Your task to perform on an android device: Open the calendar app, open the side menu, and click the "Day" option Image 0: 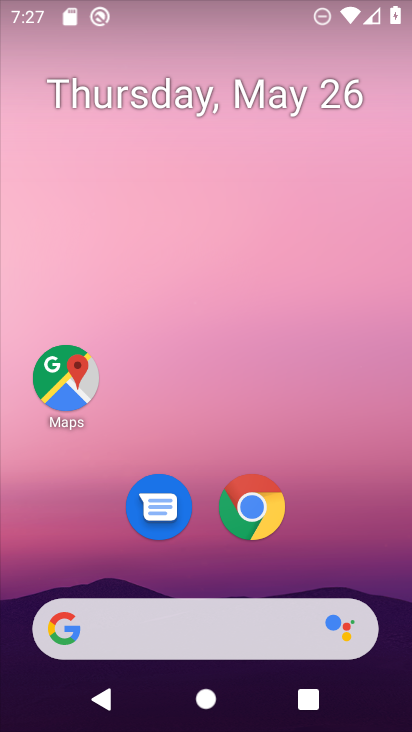
Step 0: drag from (190, 568) to (251, 171)
Your task to perform on an android device: Open the calendar app, open the side menu, and click the "Day" option Image 1: 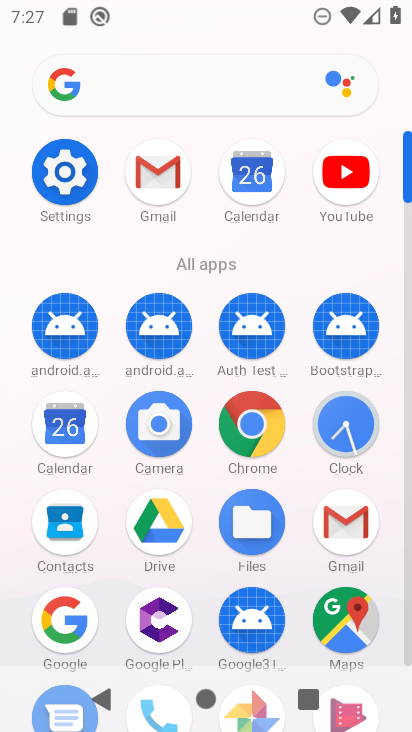
Step 1: click (247, 183)
Your task to perform on an android device: Open the calendar app, open the side menu, and click the "Day" option Image 2: 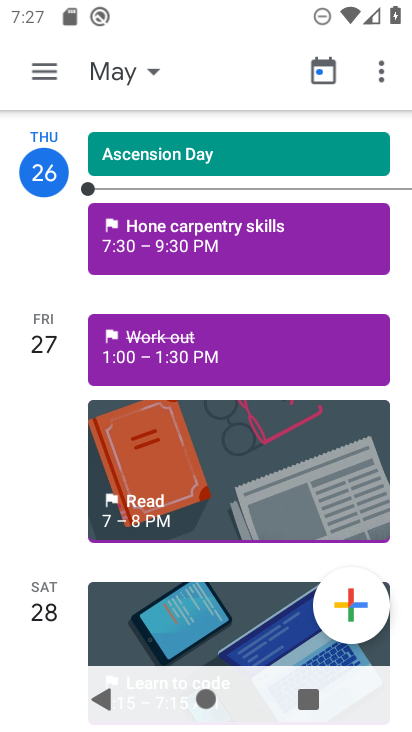
Step 2: click (55, 79)
Your task to perform on an android device: Open the calendar app, open the side menu, and click the "Day" option Image 3: 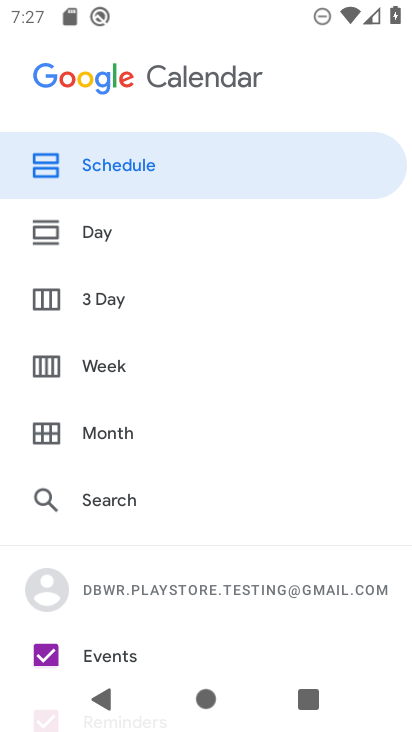
Step 3: click (112, 222)
Your task to perform on an android device: Open the calendar app, open the side menu, and click the "Day" option Image 4: 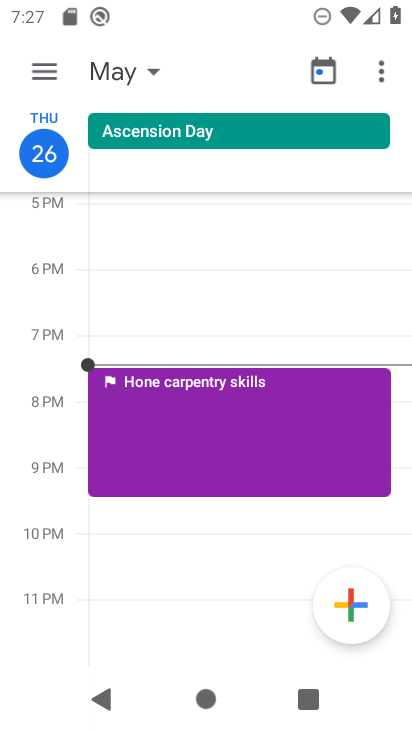
Step 4: task complete